Your task to perform on an android device: Open display settings Image 0: 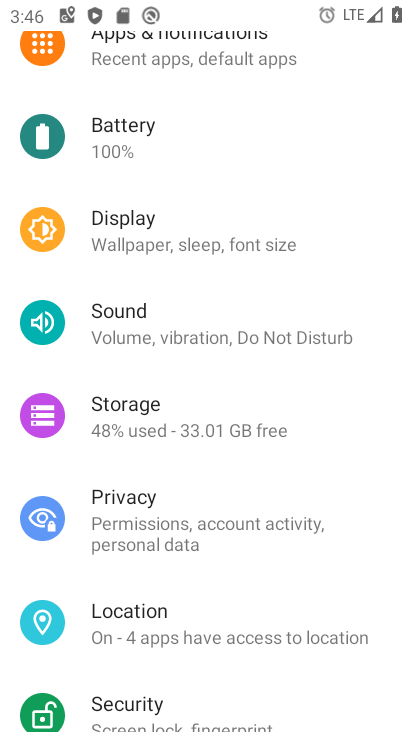
Step 0: click (211, 226)
Your task to perform on an android device: Open display settings Image 1: 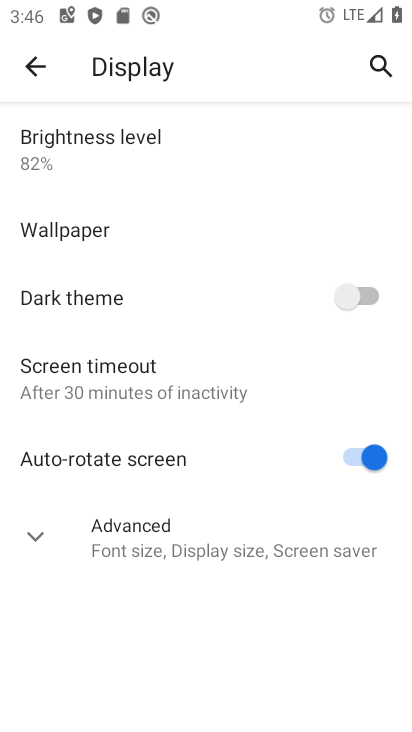
Step 1: click (36, 537)
Your task to perform on an android device: Open display settings Image 2: 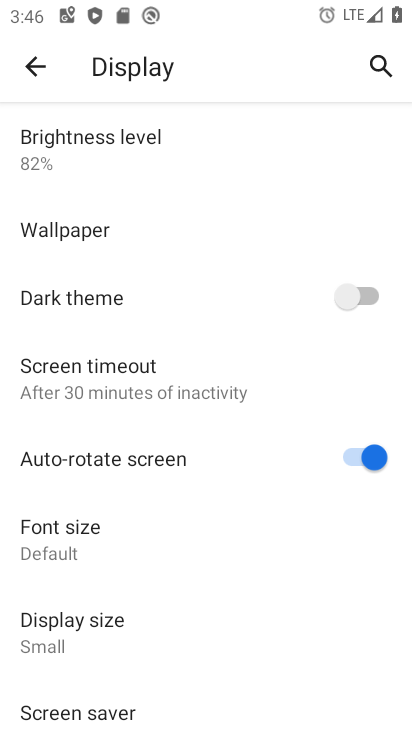
Step 2: task complete